Your task to perform on an android device: open app "Adobe Express: Graphic Design" (install if not already installed) and go to login screen Image 0: 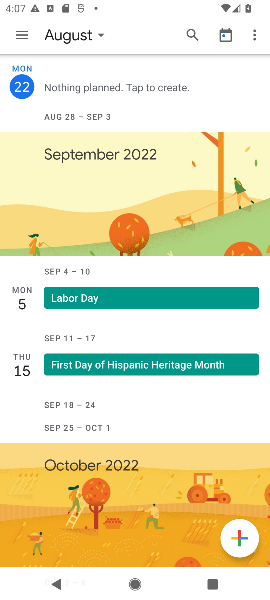
Step 0: press home button
Your task to perform on an android device: open app "Adobe Express: Graphic Design" (install if not already installed) and go to login screen Image 1: 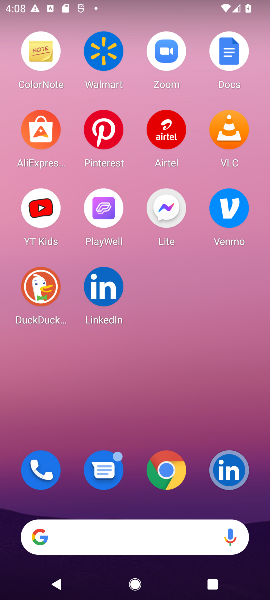
Step 1: drag from (104, 481) to (141, 228)
Your task to perform on an android device: open app "Adobe Express: Graphic Design" (install if not already installed) and go to login screen Image 2: 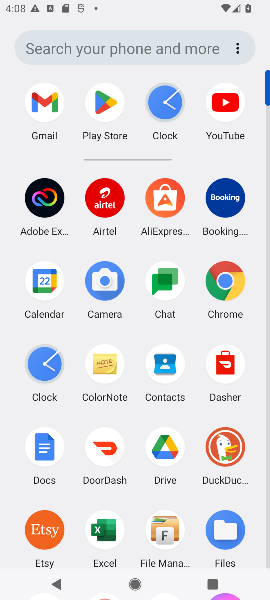
Step 2: click (97, 106)
Your task to perform on an android device: open app "Adobe Express: Graphic Design" (install if not already installed) and go to login screen Image 3: 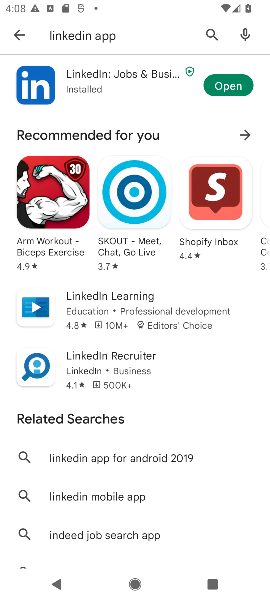
Step 3: click (8, 34)
Your task to perform on an android device: open app "Adobe Express: Graphic Design" (install if not already installed) and go to login screen Image 4: 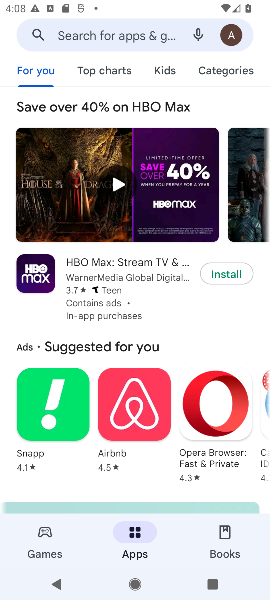
Step 4: click (132, 21)
Your task to perform on an android device: open app "Adobe Express: Graphic Design" (install if not already installed) and go to login screen Image 5: 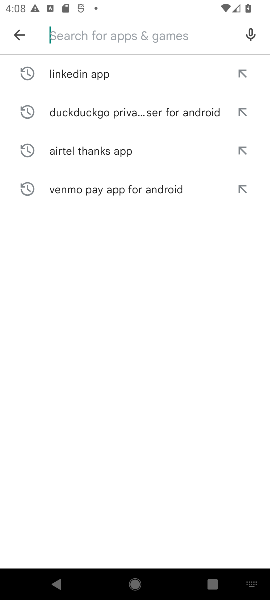
Step 5: type "Adobe Express: Graphic Design "
Your task to perform on an android device: open app "Adobe Express: Graphic Design" (install if not already installed) and go to login screen Image 6: 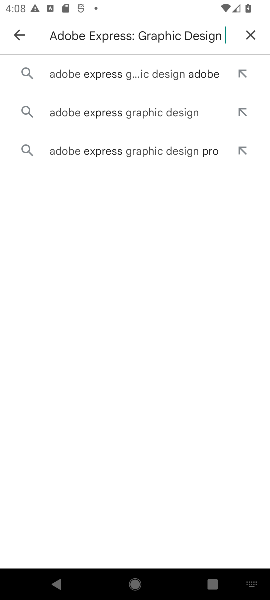
Step 6: click (132, 110)
Your task to perform on an android device: open app "Adobe Express: Graphic Design" (install if not already installed) and go to login screen Image 7: 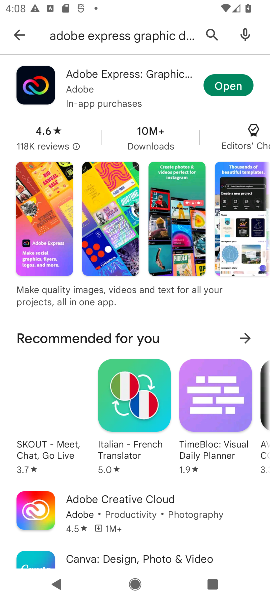
Step 7: click (234, 93)
Your task to perform on an android device: open app "Adobe Express: Graphic Design" (install if not already installed) and go to login screen Image 8: 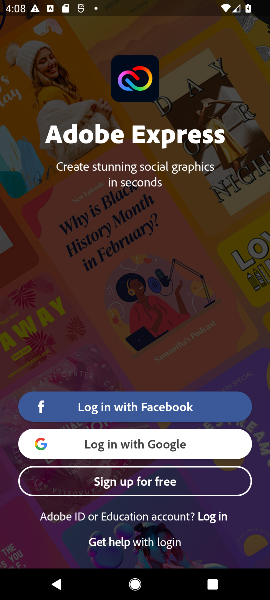
Step 8: task complete